Your task to perform on an android device: Open maps Image 0: 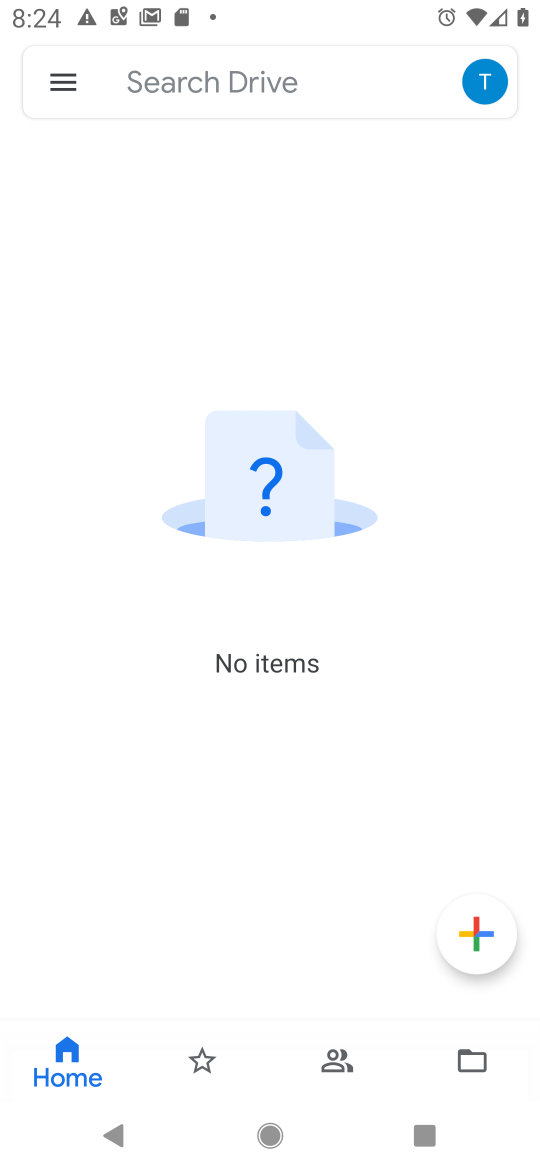
Step 0: press home button
Your task to perform on an android device: Open maps Image 1: 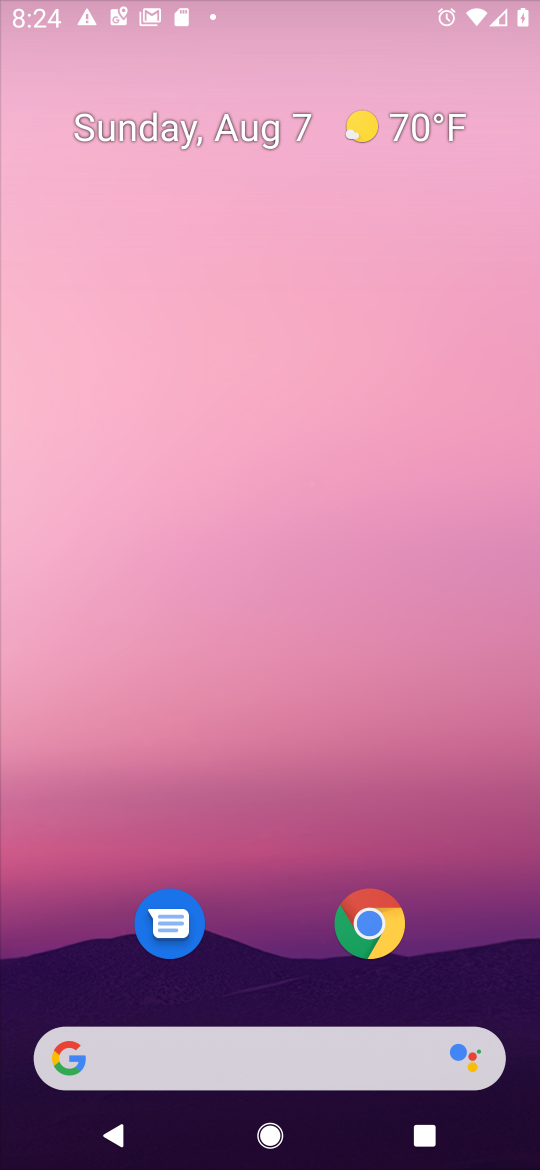
Step 1: drag from (469, 732) to (310, 121)
Your task to perform on an android device: Open maps Image 2: 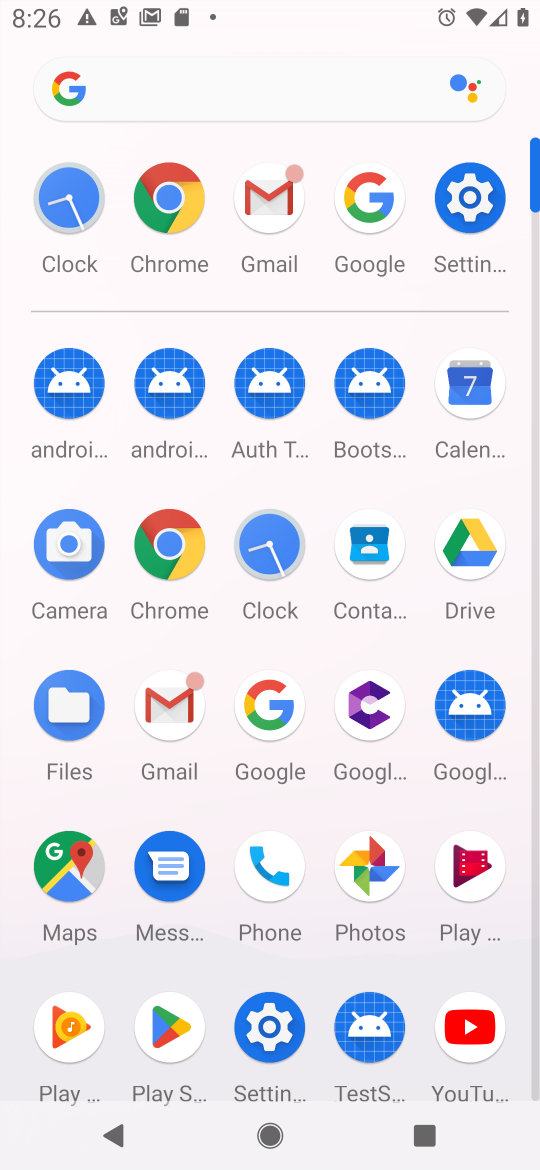
Step 2: click (56, 852)
Your task to perform on an android device: Open maps Image 3: 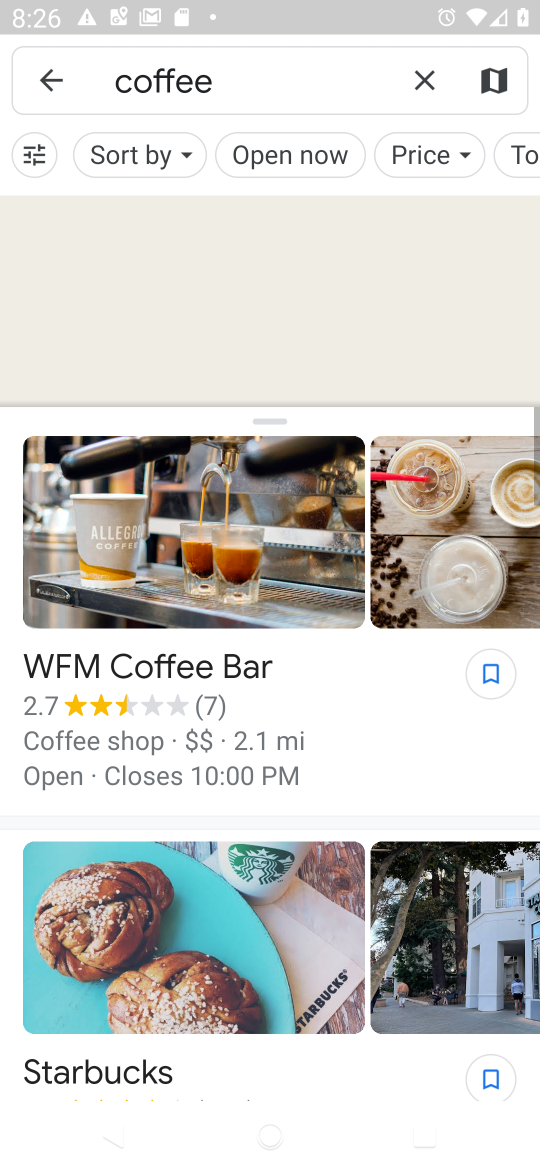
Step 3: click (401, 96)
Your task to perform on an android device: Open maps Image 4: 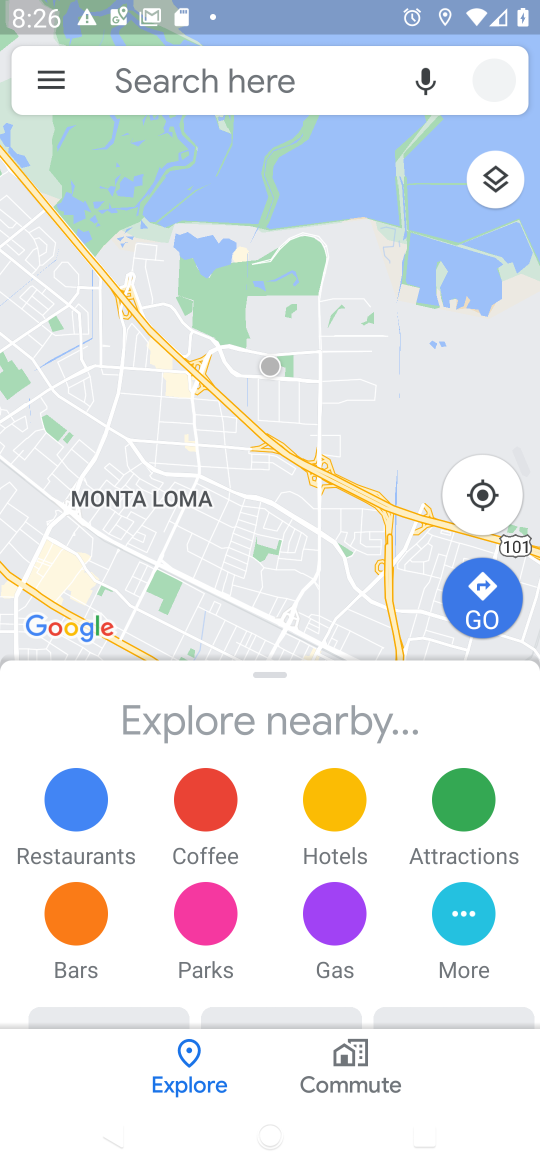
Step 4: task complete